Your task to perform on an android device: toggle airplane mode Image 0: 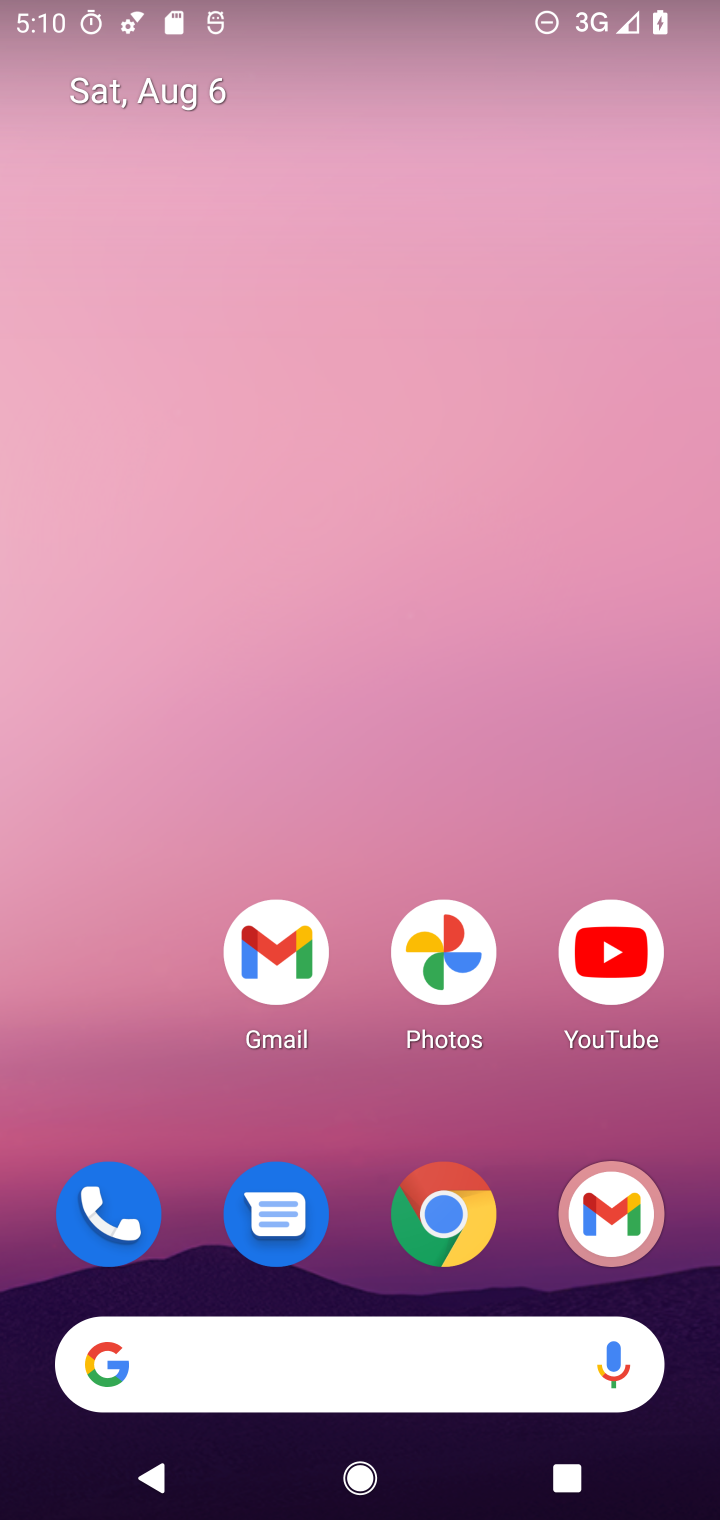
Step 0: drag from (340, 977) to (301, 210)
Your task to perform on an android device: toggle airplane mode Image 1: 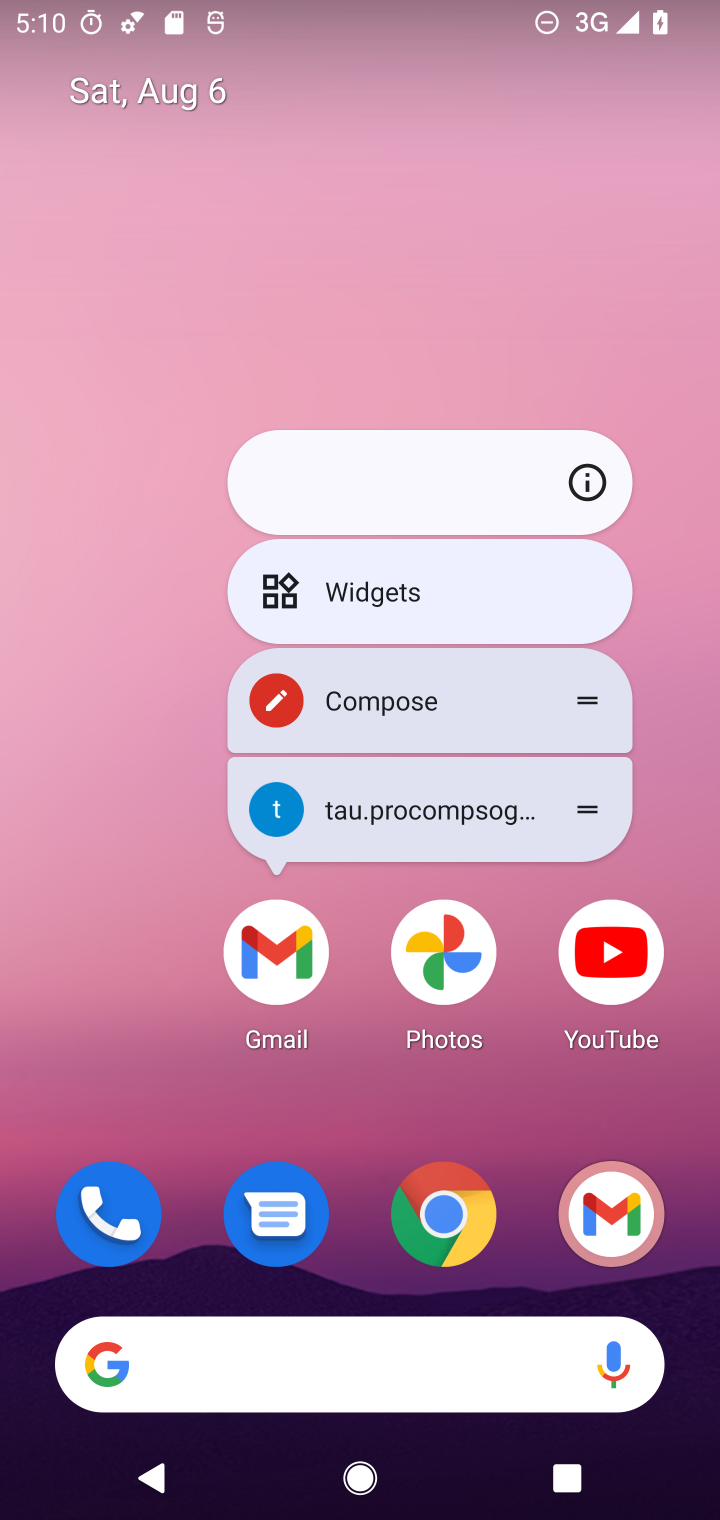
Step 1: drag from (368, 417) to (357, 10)
Your task to perform on an android device: toggle airplane mode Image 2: 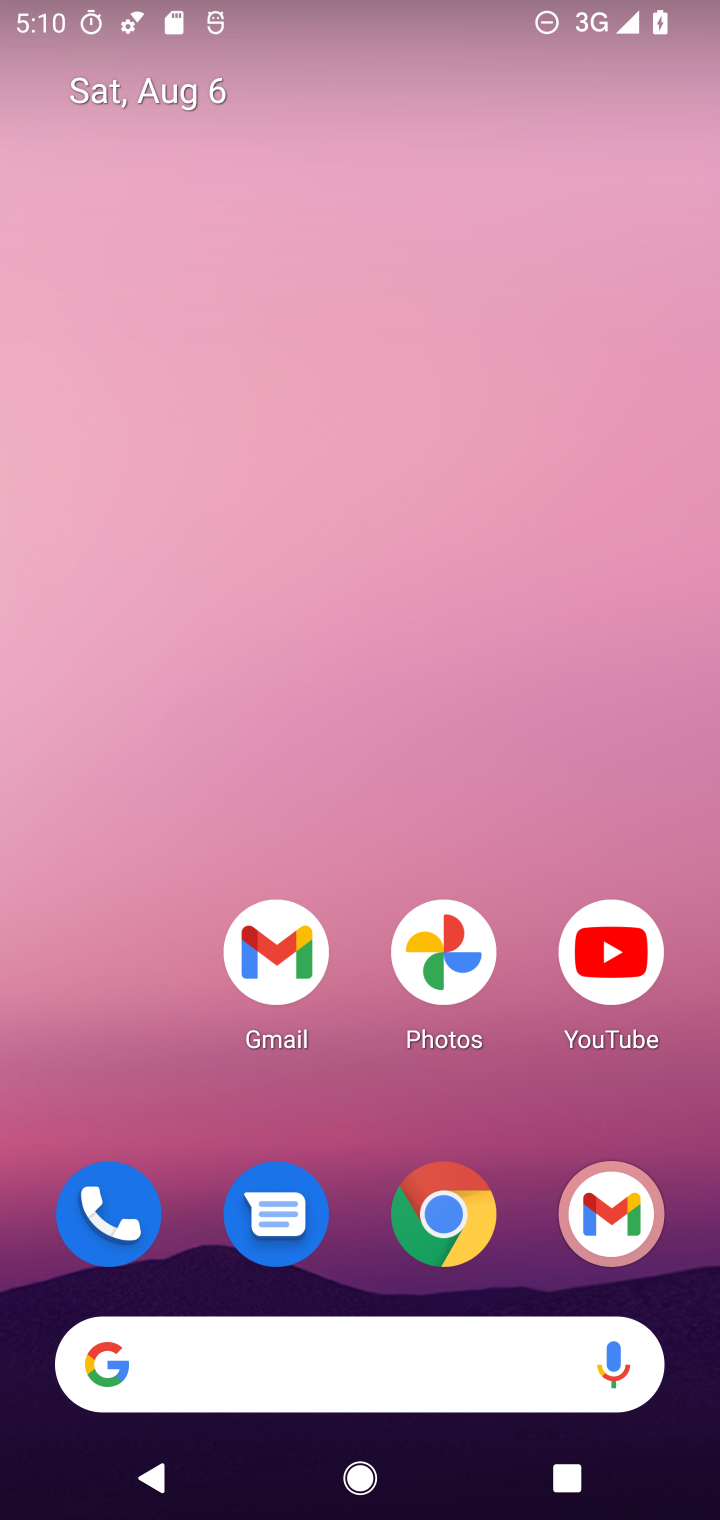
Step 2: drag from (351, 1192) to (349, 241)
Your task to perform on an android device: toggle airplane mode Image 3: 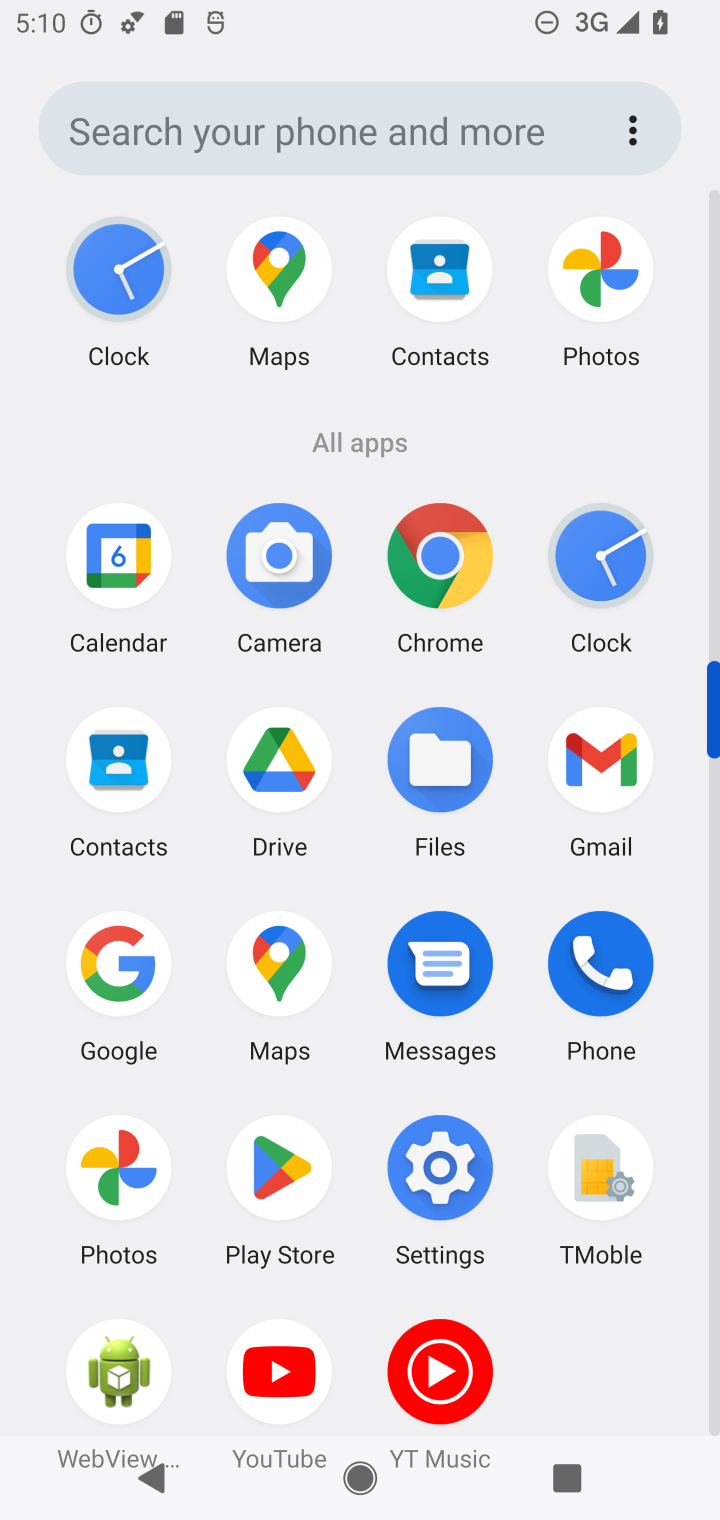
Step 3: click (435, 1194)
Your task to perform on an android device: toggle airplane mode Image 4: 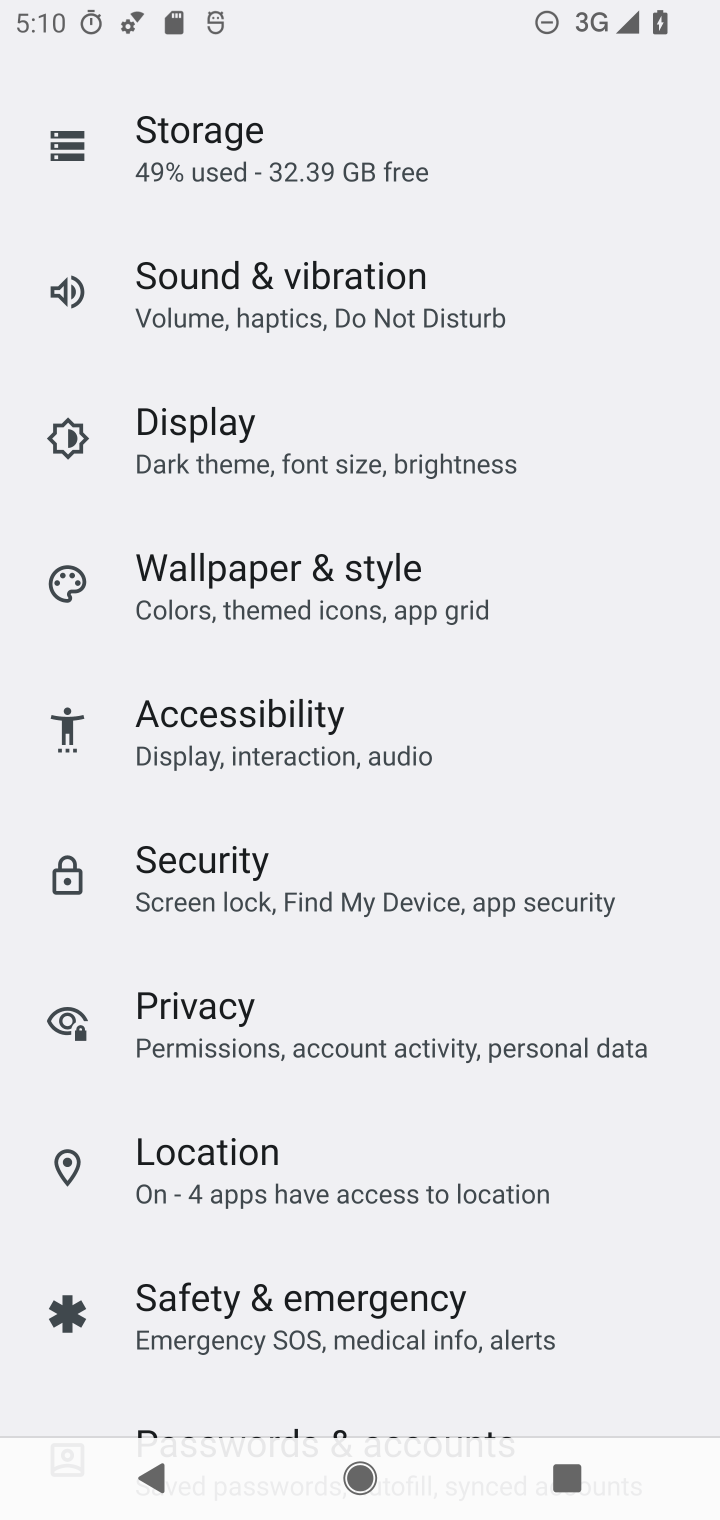
Step 4: drag from (363, 1154) to (363, 1251)
Your task to perform on an android device: toggle airplane mode Image 5: 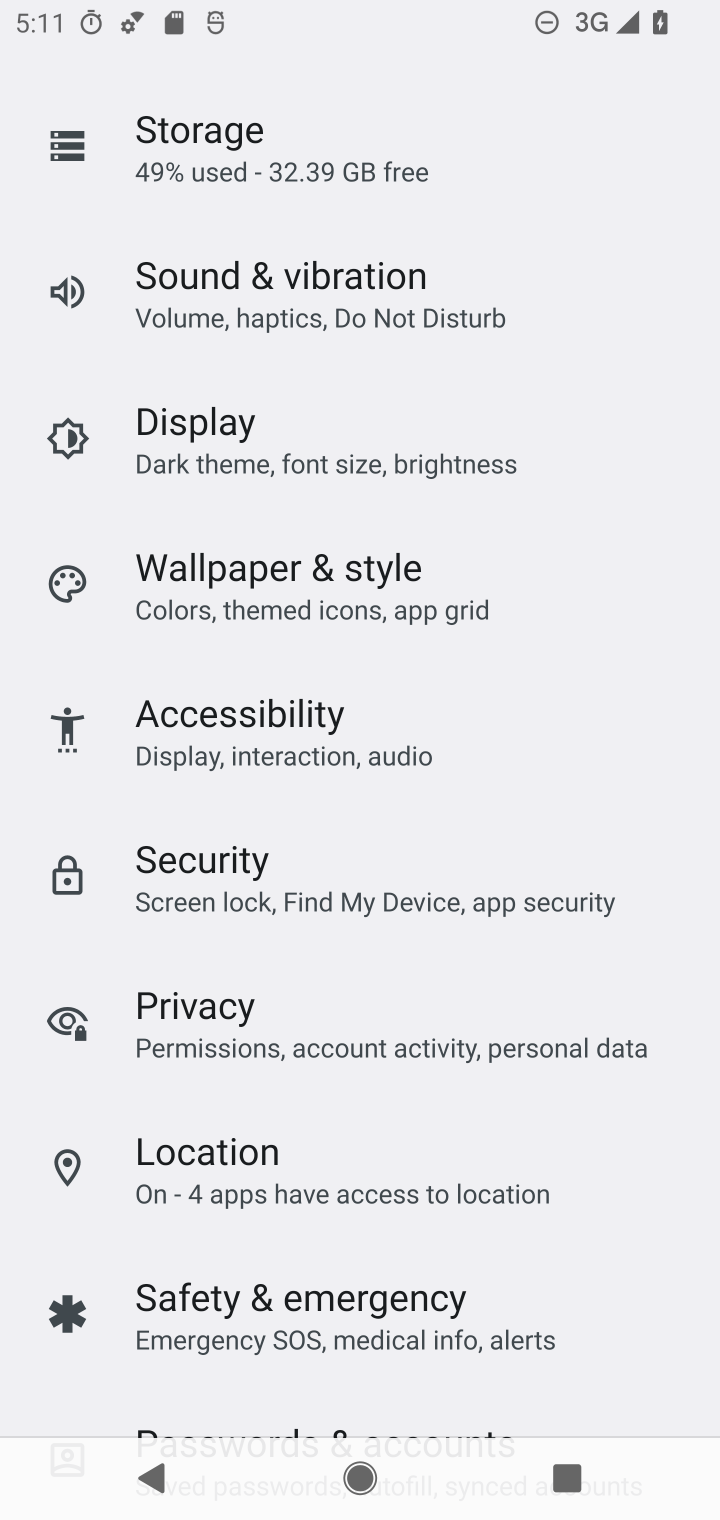
Step 5: drag from (293, 588) to (250, 1238)
Your task to perform on an android device: toggle airplane mode Image 6: 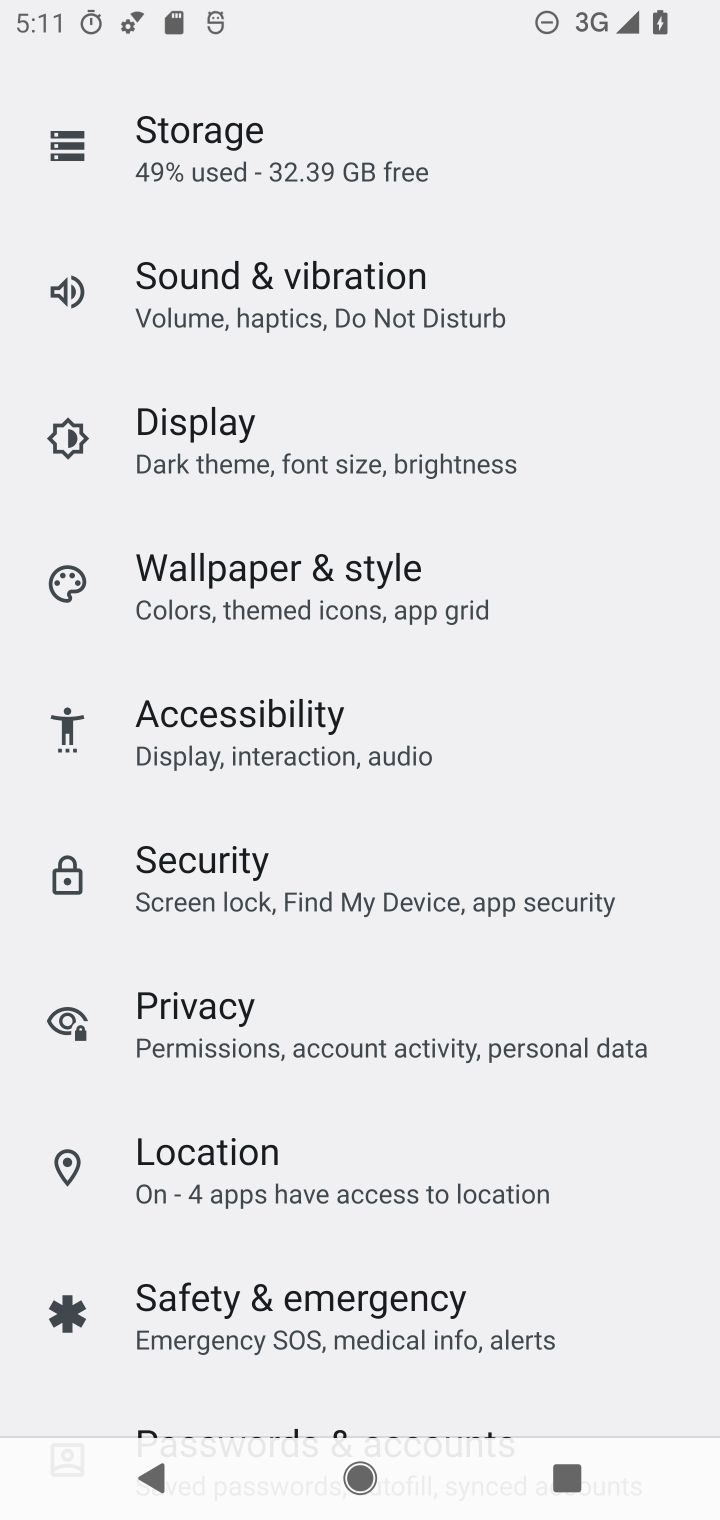
Step 6: drag from (325, 560) to (325, 1166)
Your task to perform on an android device: toggle airplane mode Image 7: 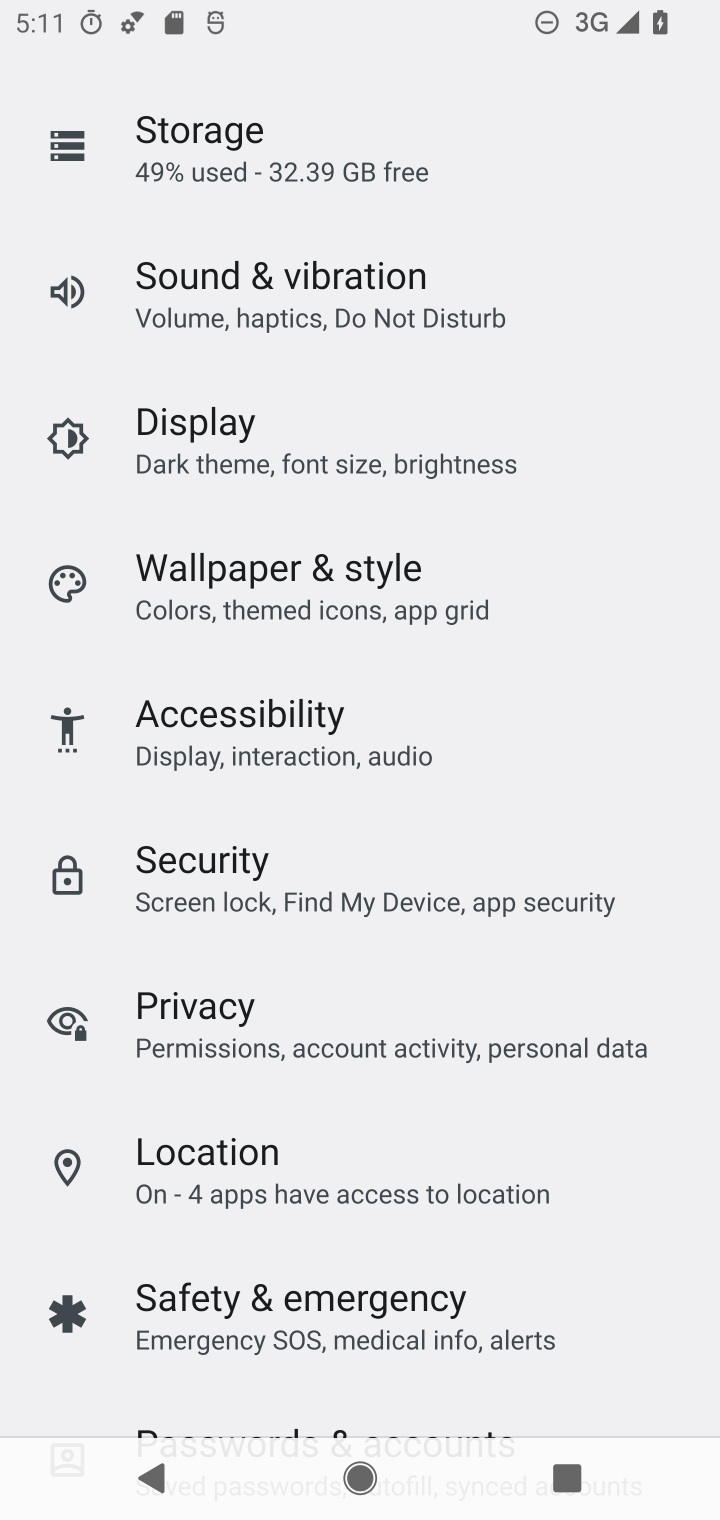
Step 7: drag from (391, 323) to (364, 913)
Your task to perform on an android device: toggle airplane mode Image 8: 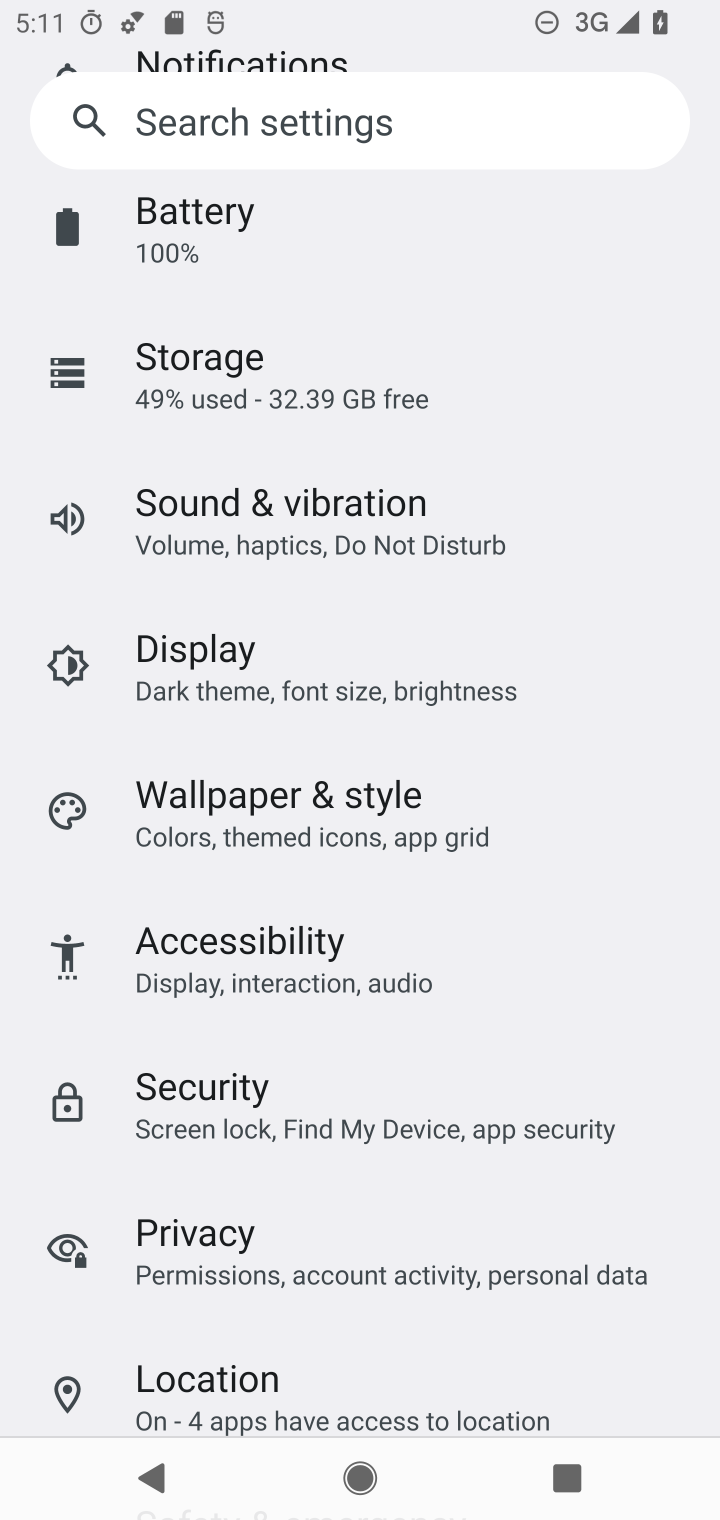
Step 8: drag from (355, 407) to (354, 1162)
Your task to perform on an android device: toggle airplane mode Image 9: 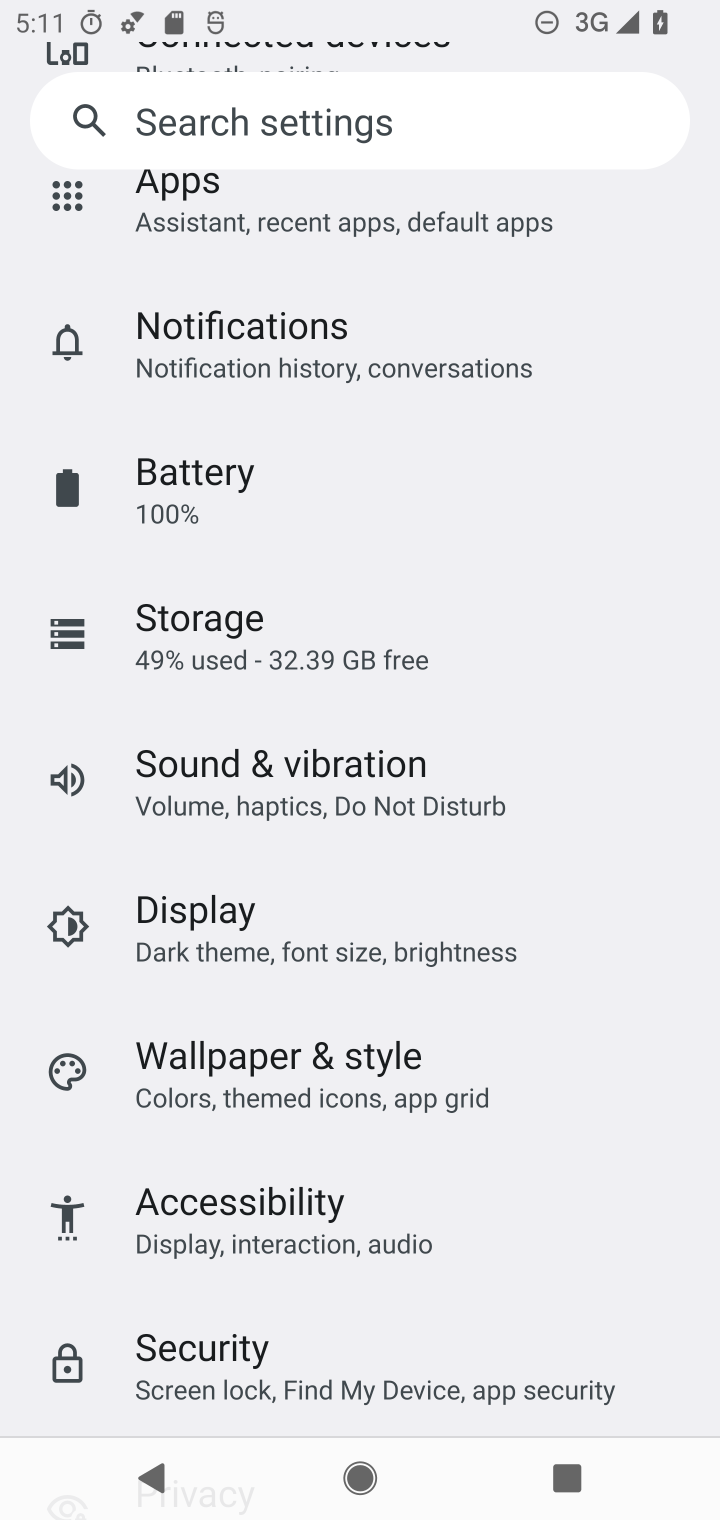
Step 9: drag from (406, 630) to (405, 1051)
Your task to perform on an android device: toggle airplane mode Image 10: 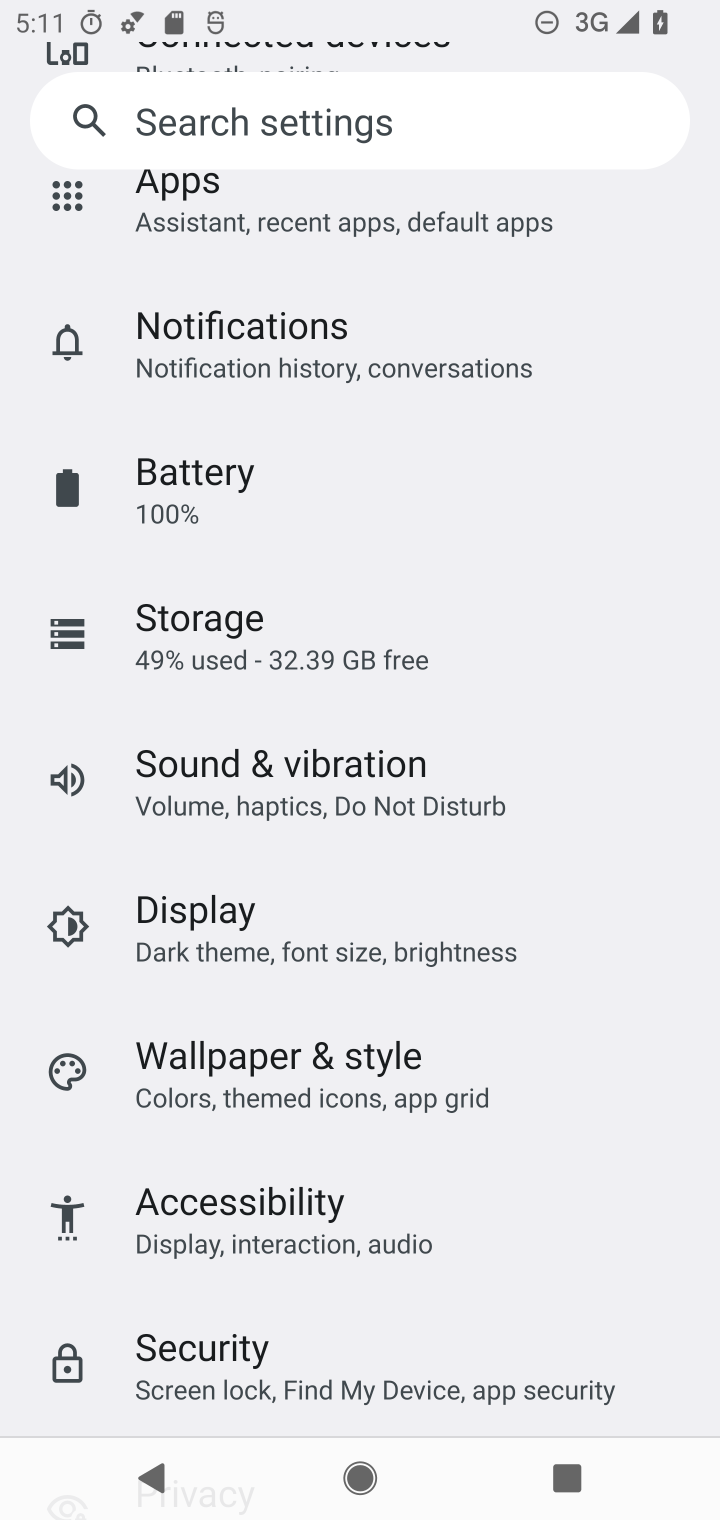
Step 10: drag from (367, 561) to (374, 1213)
Your task to perform on an android device: toggle airplane mode Image 11: 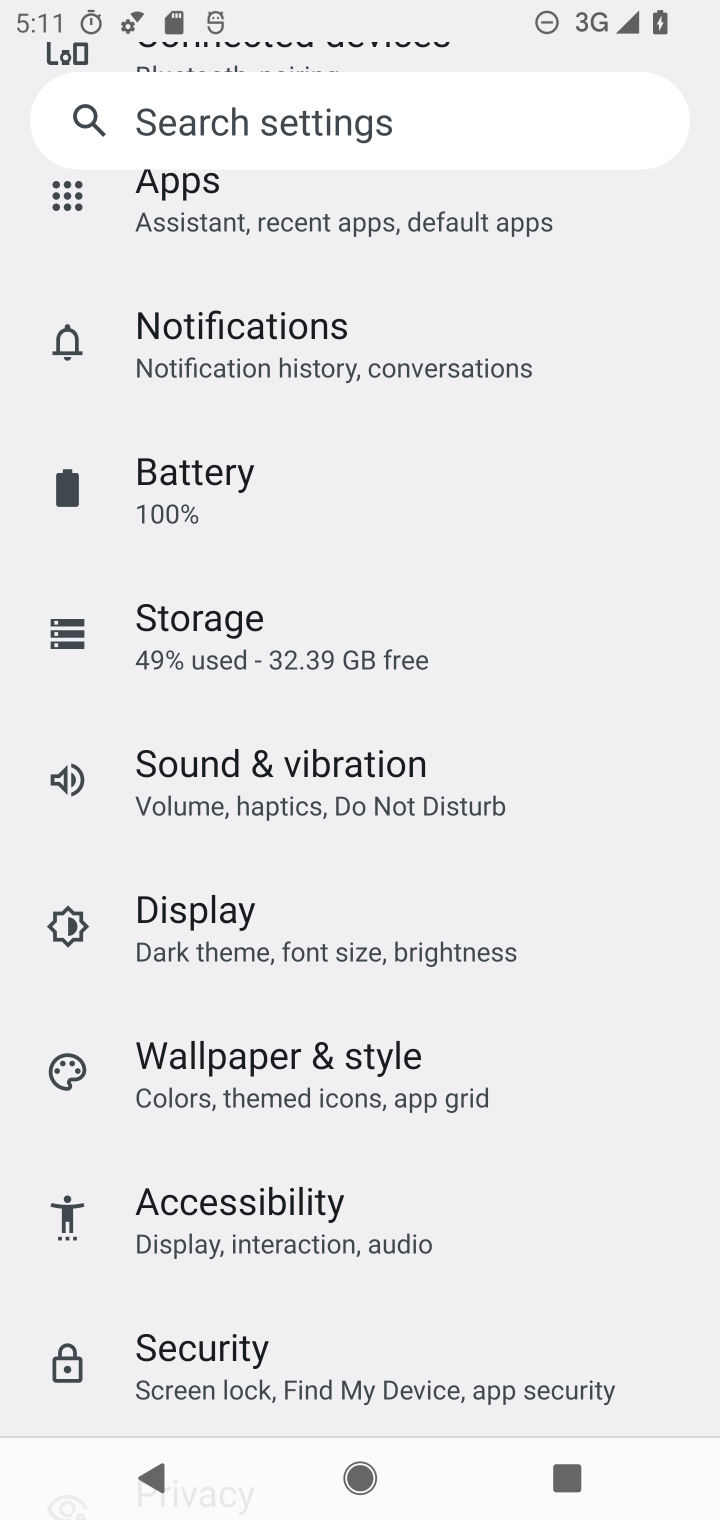
Step 11: drag from (355, 377) to (355, 803)
Your task to perform on an android device: toggle airplane mode Image 12: 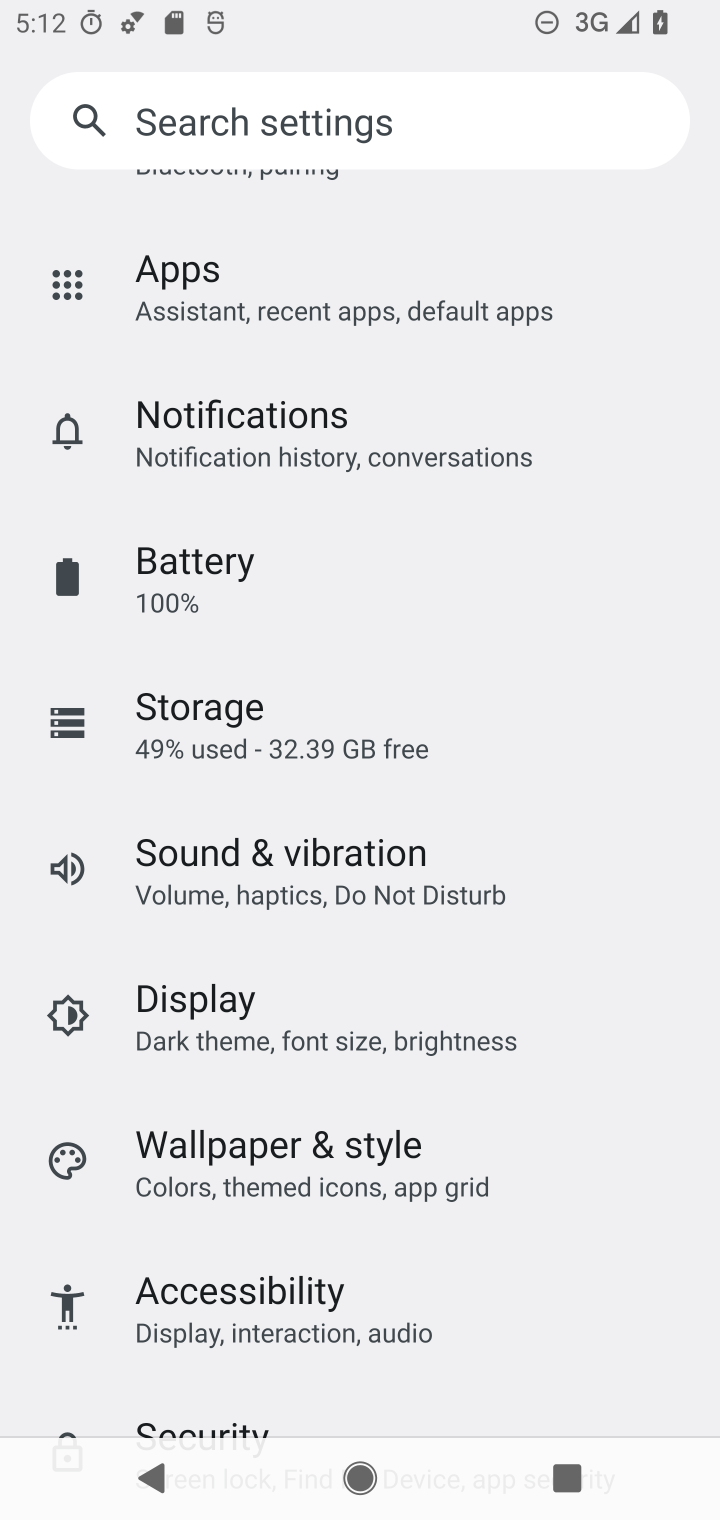
Step 12: drag from (487, 595) to (441, 900)
Your task to perform on an android device: toggle airplane mode Image 13: 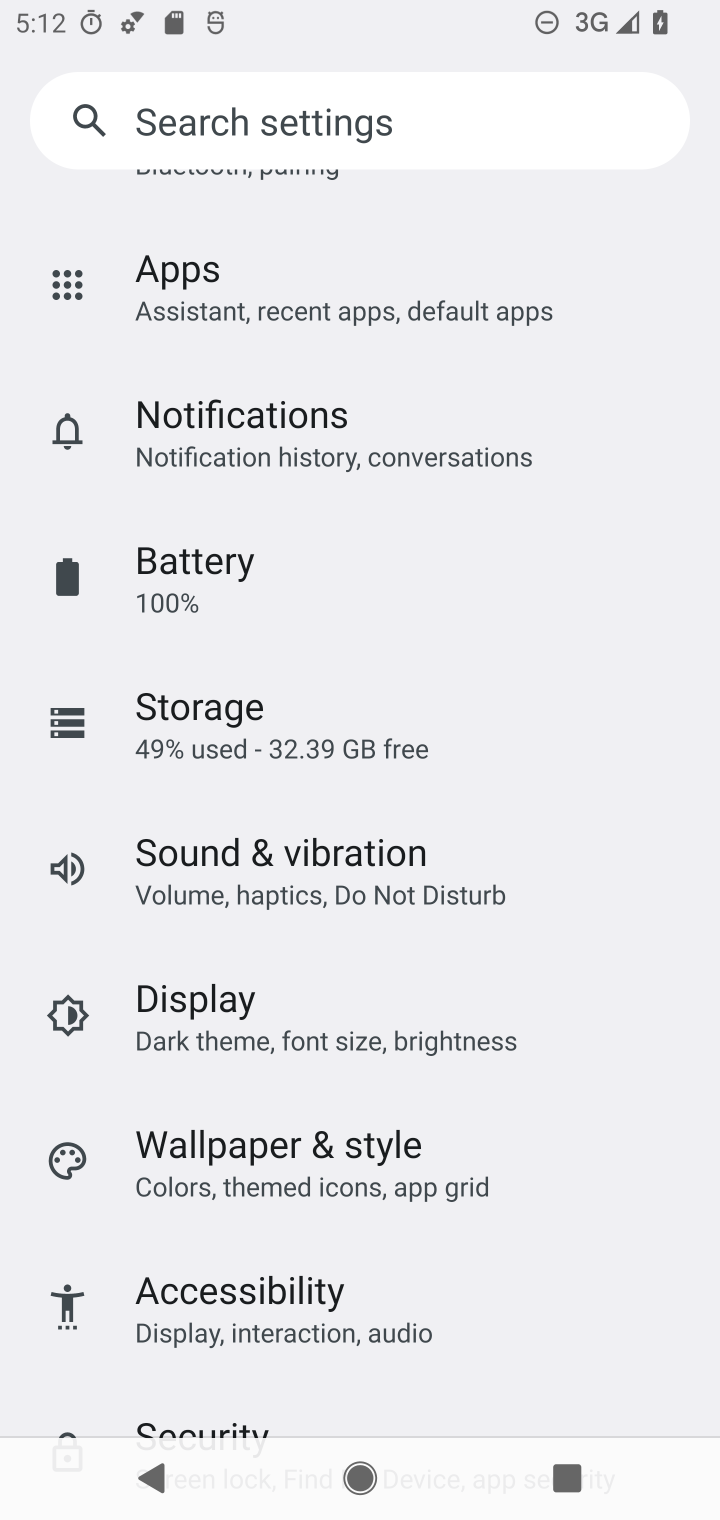
Step 13: drag from (403, 434) to (403, 1156)
Your task to perform on an android device: toggle airplane mode Image 14: 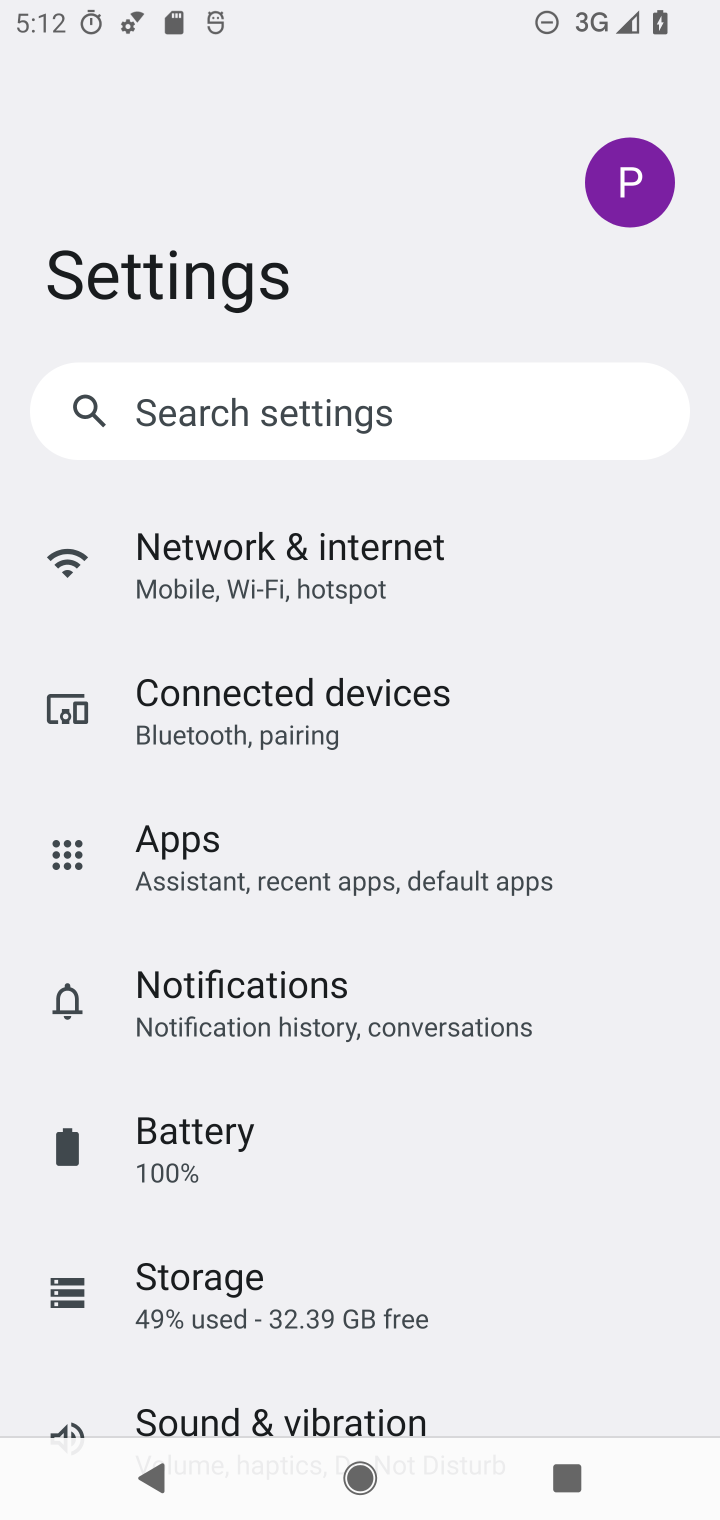
Step 14: click (285, 550)
Your task to perform on an android device: toggle airplane mode Image 15: 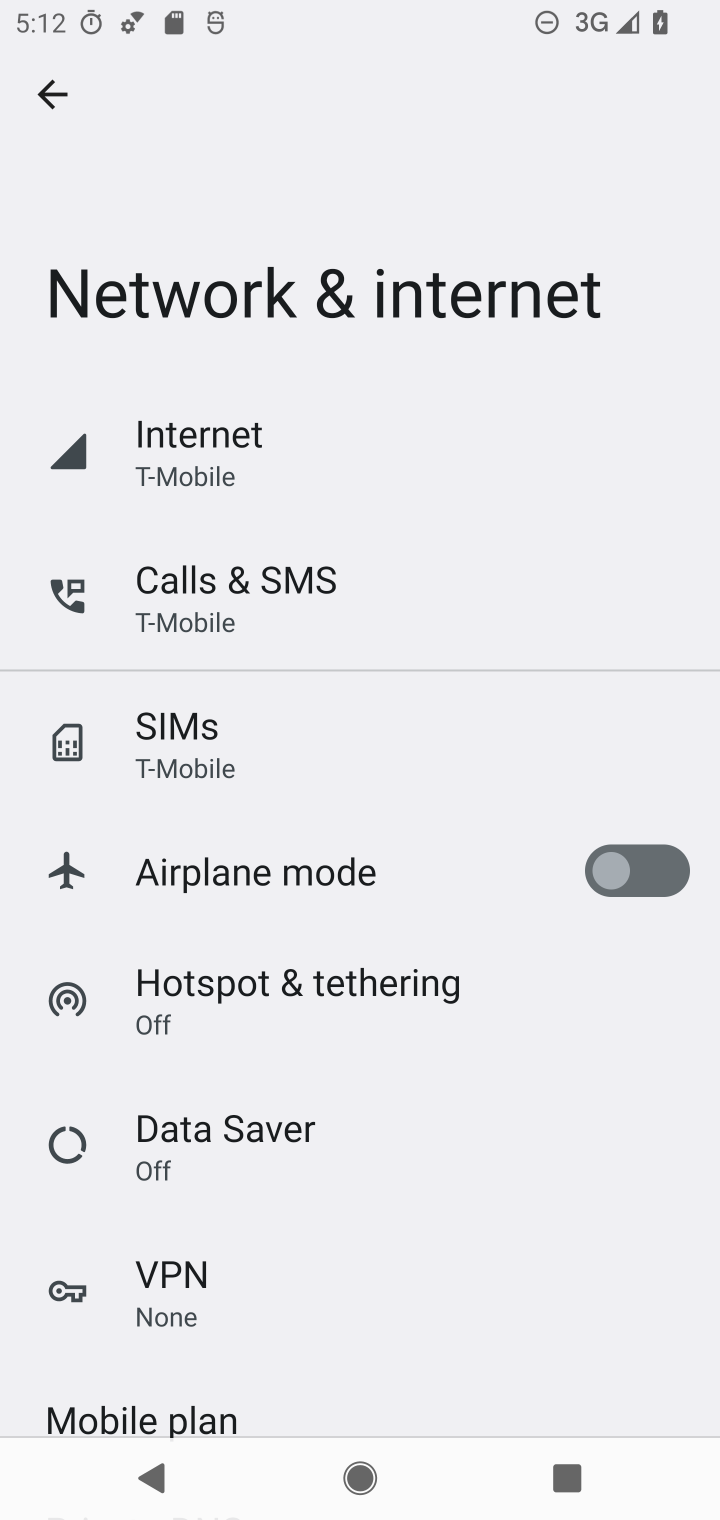
Step 15: click (623, 884)
Your task to perform on an android device: toggle airplane mode Image 16: 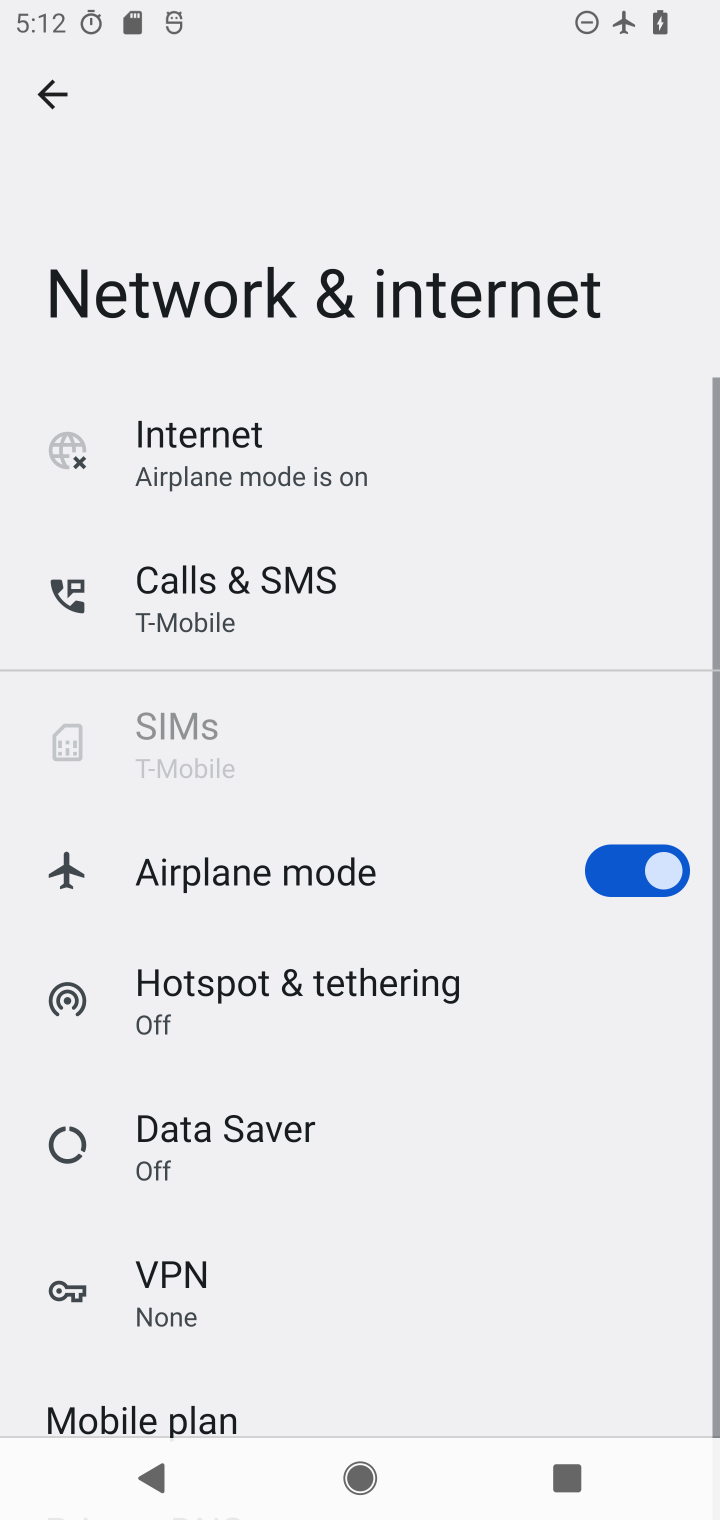
Step 16: task complete